Your task to perform on an android device: move a message to another label in the gmail app Image 0: 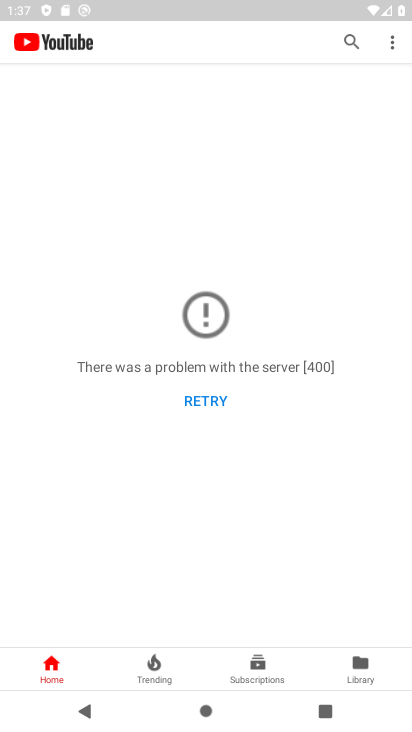
Step 0: press back button
Your task to perform on an android device: move a message to another label in the gmail app Image 1: 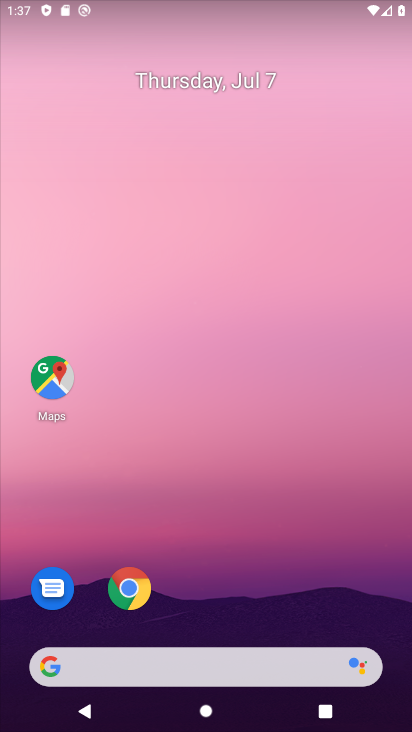
Step 1: drag from (254, 594) to (249, 11)
Your task to perform on an android device: move a message to another label in the gmail app Image 2: 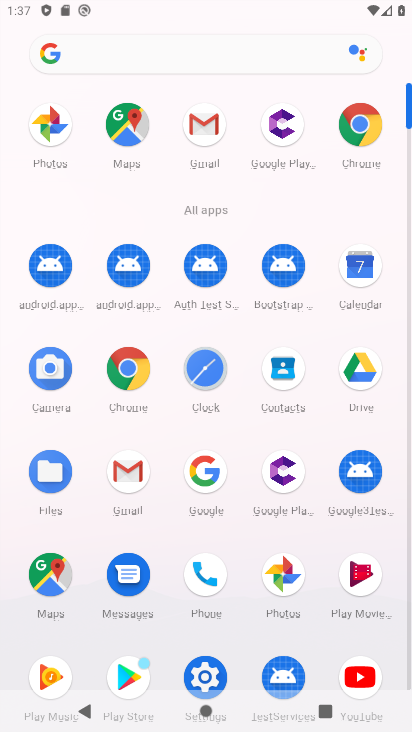
Step 2: click (192, 108)
Your task to perform on an android device: move a message to another label in the gmail app Image 3: 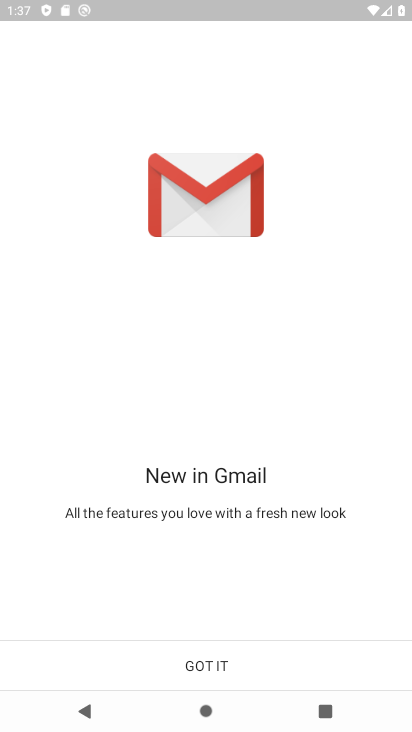
Step 3: click (218, 648)
Your task to perform on an android device: move a message to another label in the gmail app Image 4: 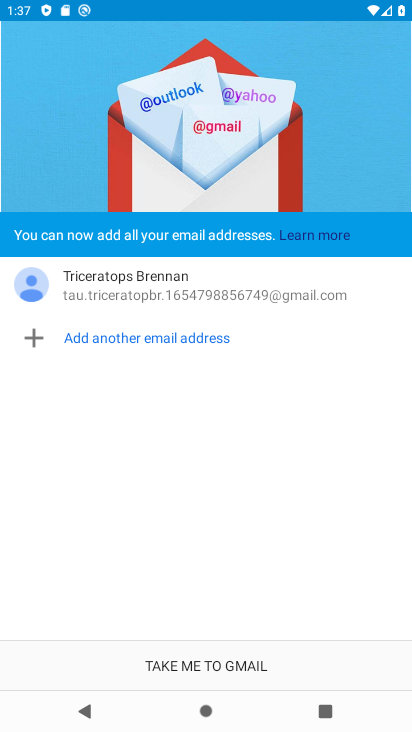
Step 4: click (201, 671)
Your task to perform on an android device: move a message to another label in the gmail app Image 5: 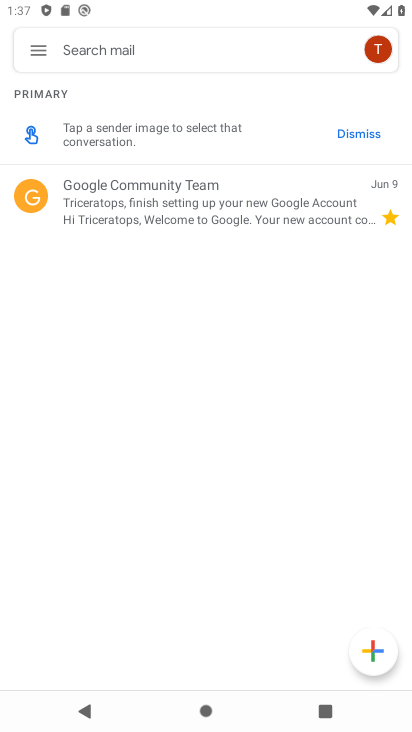
Step 5: click (128, 197)
Your task to perform on an android device: move a message to another label in the gmail app Image 6: 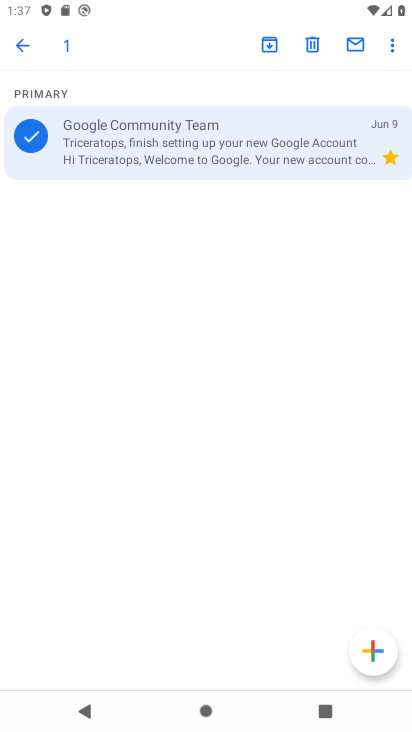
Step 6: click (391, 39)
Your task to perform on an android device: move a message to another label in the gmail app Image 7: 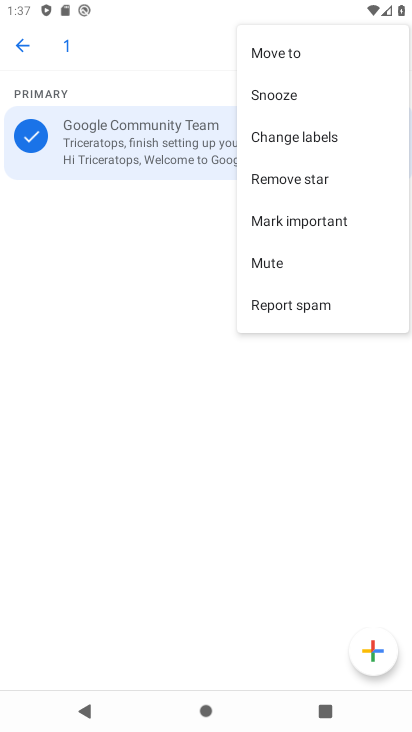
Step 7: click (308, 144)
Your task to perform on an android device: move a message to another label in the gmail app Image 8: 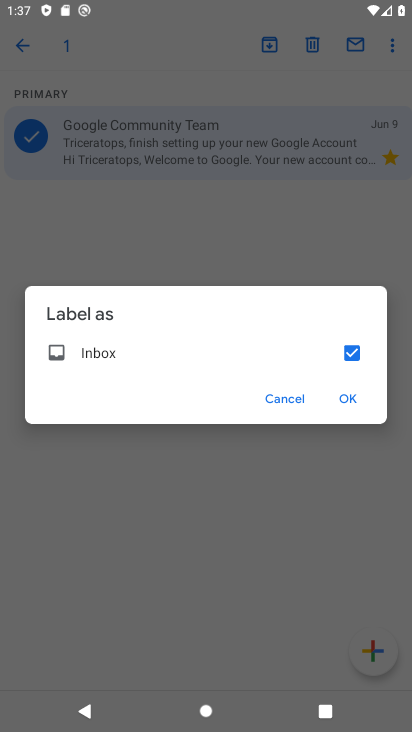
Step 8: click (352, 396)
Your task to perform on an android device: move a message to another label in the gmail app Image 9: 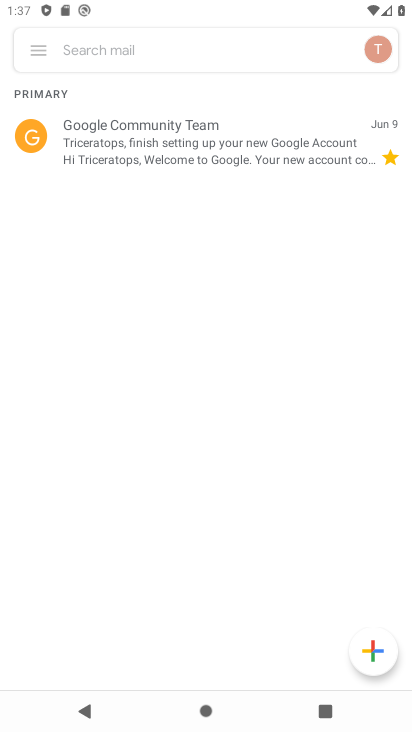
Step 9: task complete